Your task to perform on an android device: make emails show in primary in the gmail app Image 0: 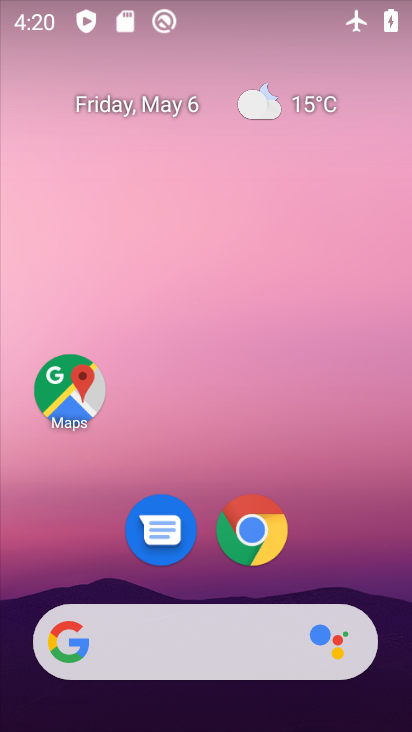
Step 0: drag from (324, 577) to (327, 110)
Your task to perform on an android device: make emails show in primary in the gmail app Image 1: 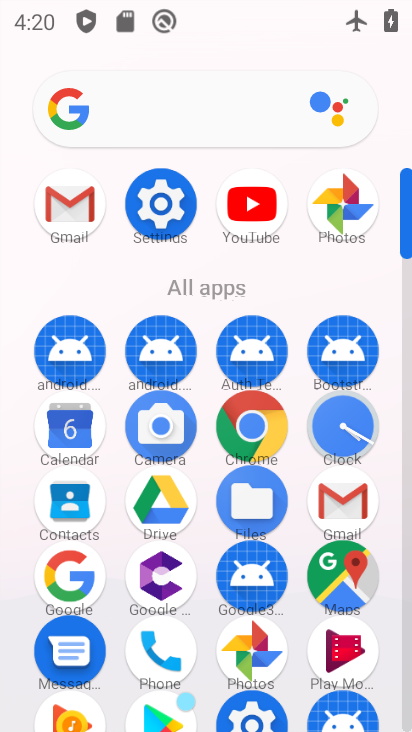
Step 1: click (43, 214)
Your task to perform on an android device: make emails show in primary in the gmail app Image 2: 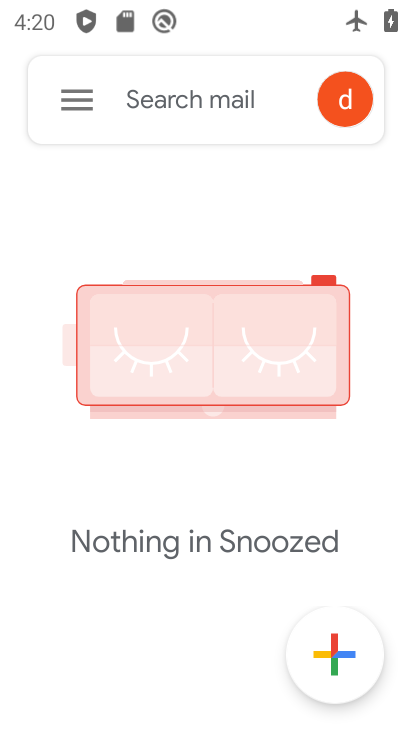
Step 2: click (73, 105)
Your task to perform on an android device: make emails show in primary in the gmail app Image 3: 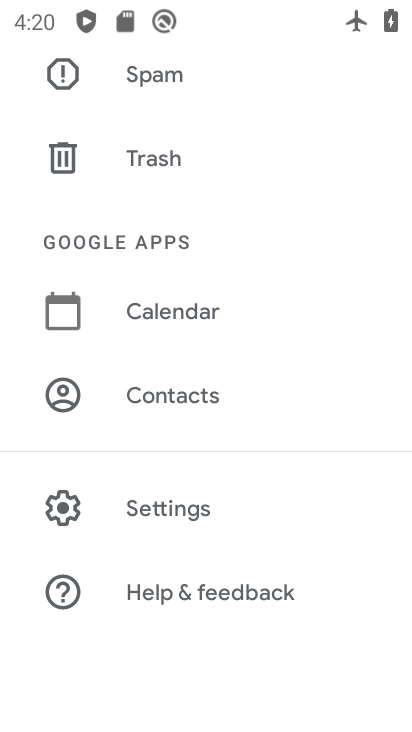
Step 3: click (188, 511)
Your task to perform on an android device: make emails show in primary in the gmail app Image 4: 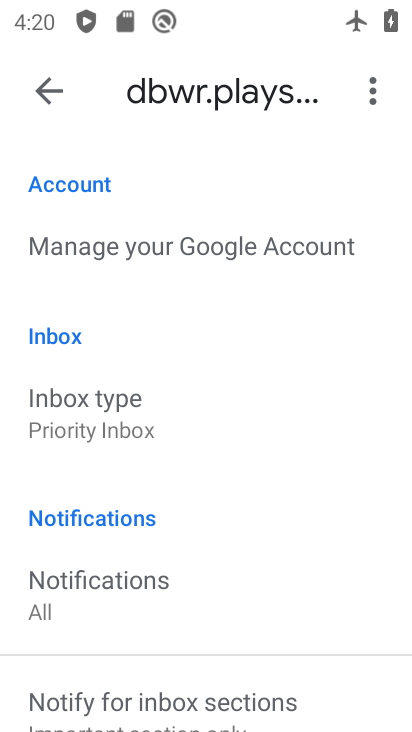
Step 4: click (89, 413)
Your task to perform on an android device: make emails show in primary in the gmail app Image 5: 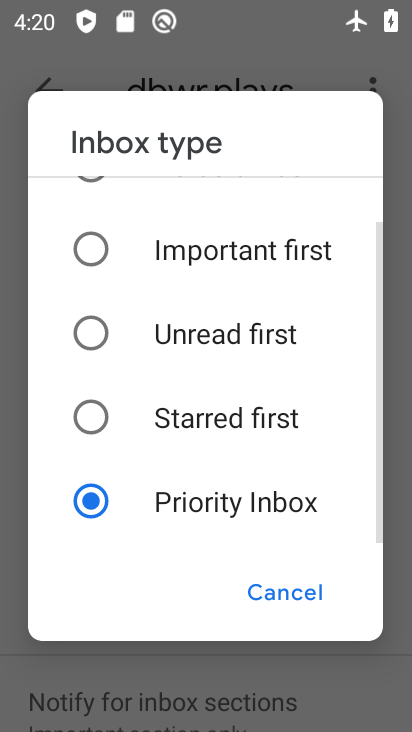
Step 5: drag from (183, 244) to (185, 505)
Your task to perform on an android device: make emails show in primary in the gmail app Image 6: 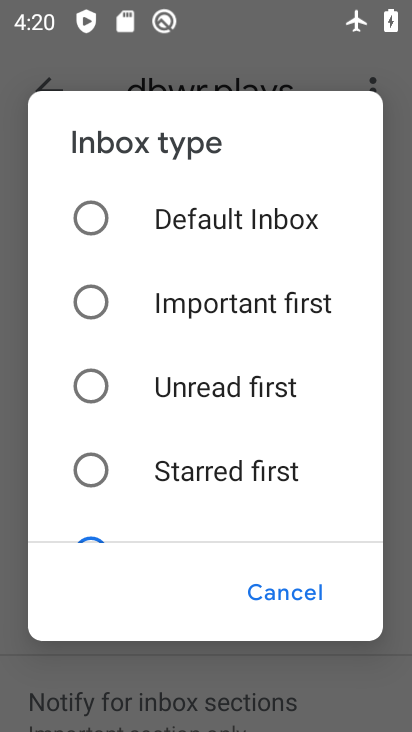
Step 6: click (88, 224)
Your task to perform on an android device: make emails show in primary in the gmail app Image 7: 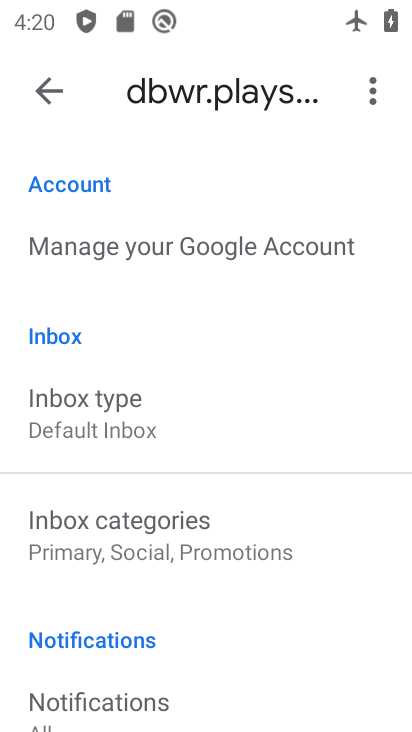
Step 7: task complete